Your task to perform on an android device: show emergency info Image 0: 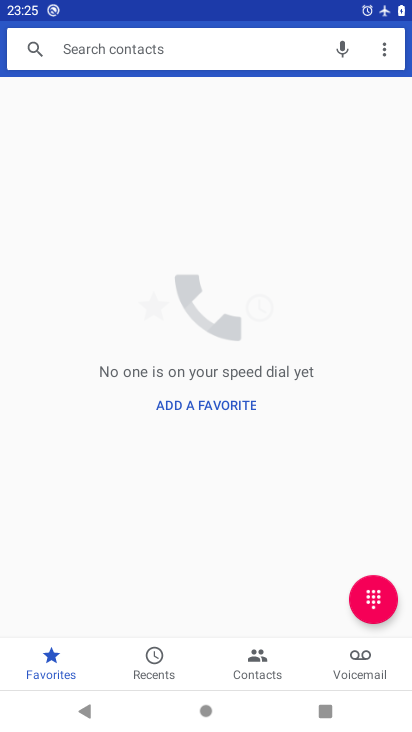
Step 0: press home button
Your task to perform on an android device: show emergency info Image 1: 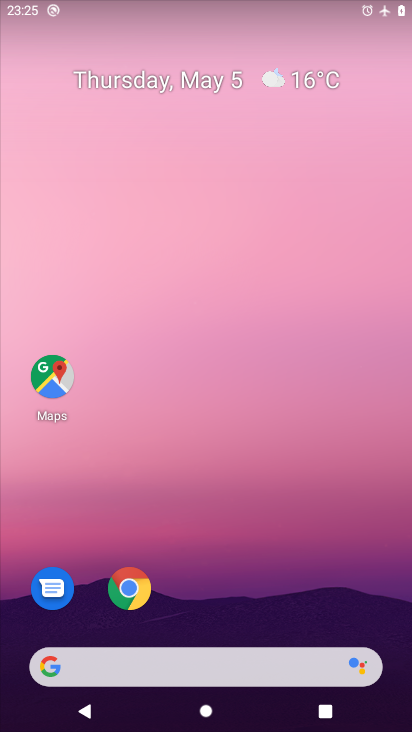
Step 1: drag from (199, 622) to (209, 224)
Your task to perform on an android device: show emergency info Image 2: 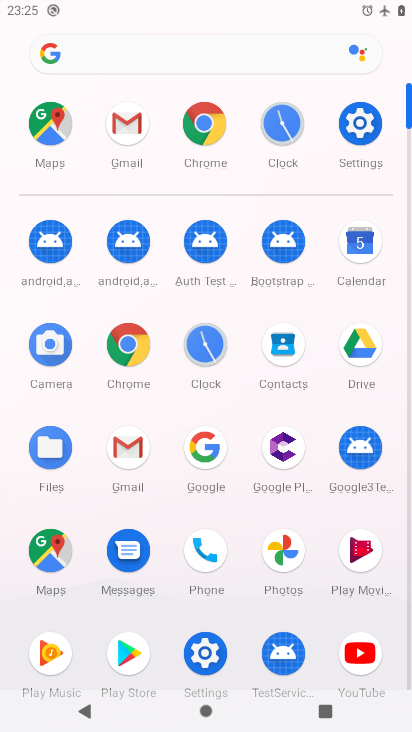
Step 2: click (201, 649)
Your task to perform on an android device: show emergency info Image 3: 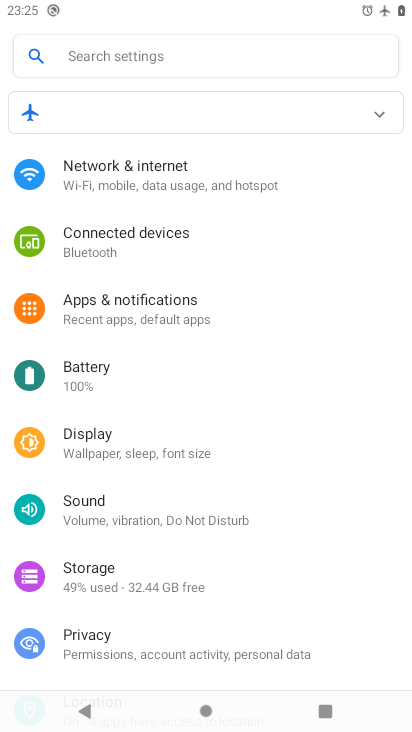
Step 3: drag from (208, 596) to (251, 187)
Your task to perform on an android device: show emergency info Image 4: 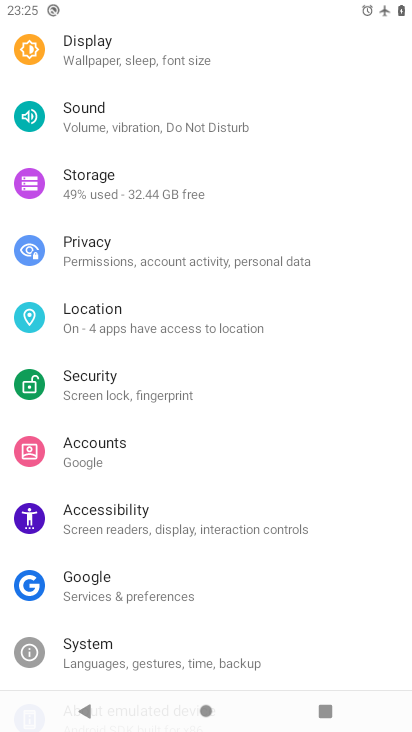
Step 4: drag from (276, 537) to (286, 187)
Your task to perform on an android device: show emergency info Image 5: 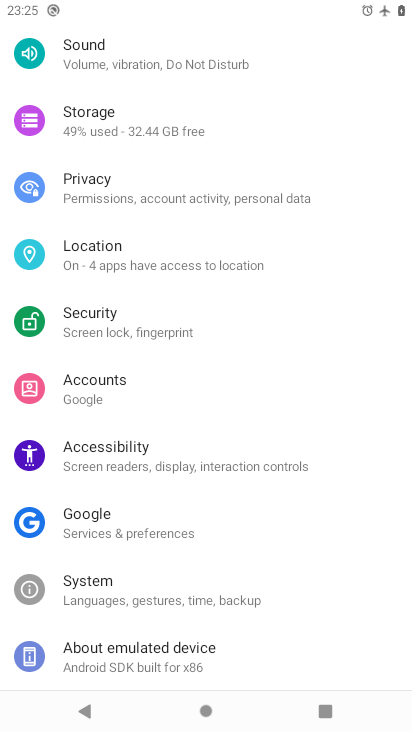
Step 5: click (199, 643)
Your task to perform on an android device: show emergency info Image 6: 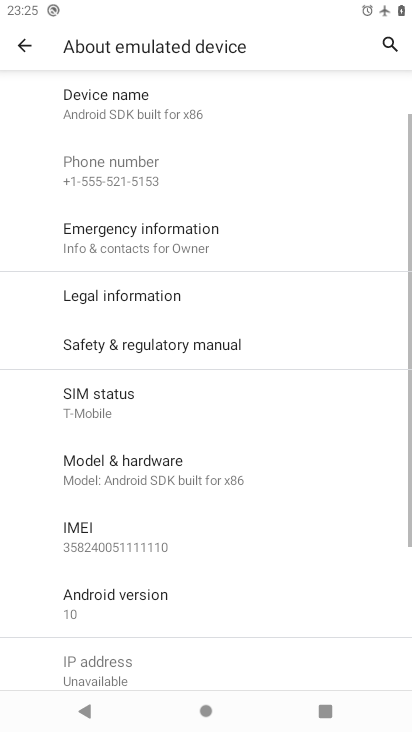
Step 6: click (221, 241)
Your task to perform on an android device: show emergency info Image 7: 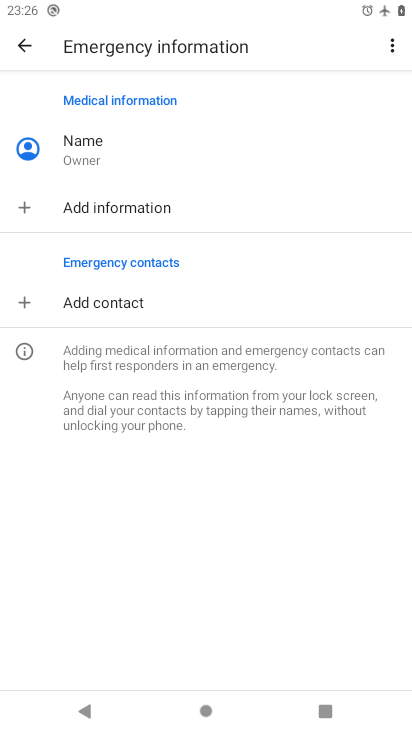
Step 7: task complete